Your task to perform on an android device: Open settings on Google Maps Image 0: 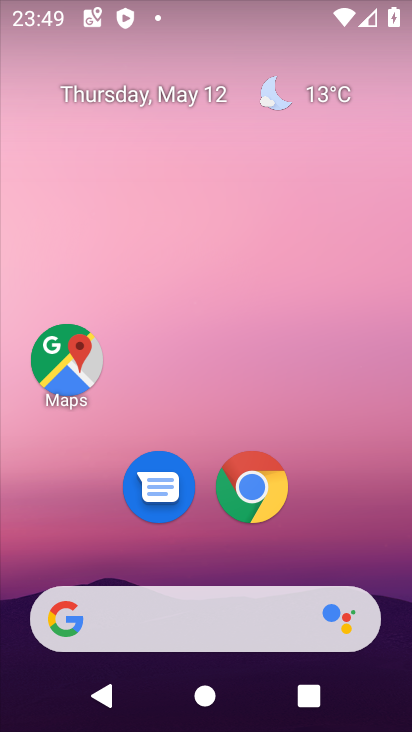
Step 0: click (106, 361)
Your task to perform on an android device: Open settings on Google Maps Image 1: 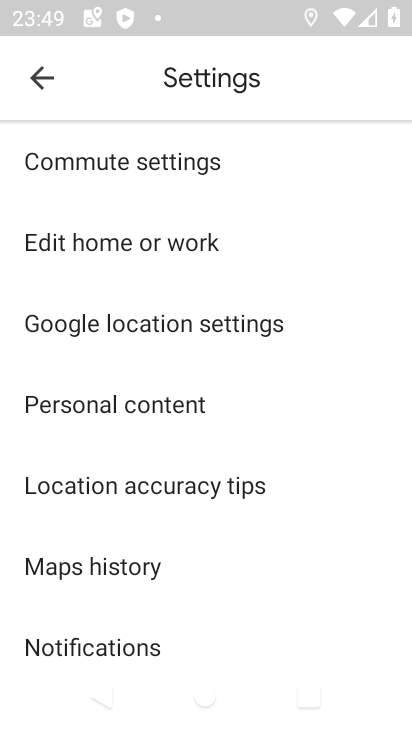
Step 1: task complete